Your task to perform on an android device: Open maps Image 0: 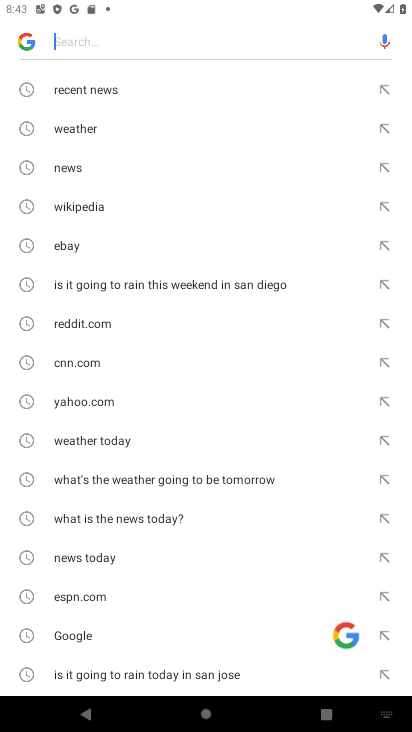
Step 0: press home button
Your task to perform on an android device: Open maps Image 1: 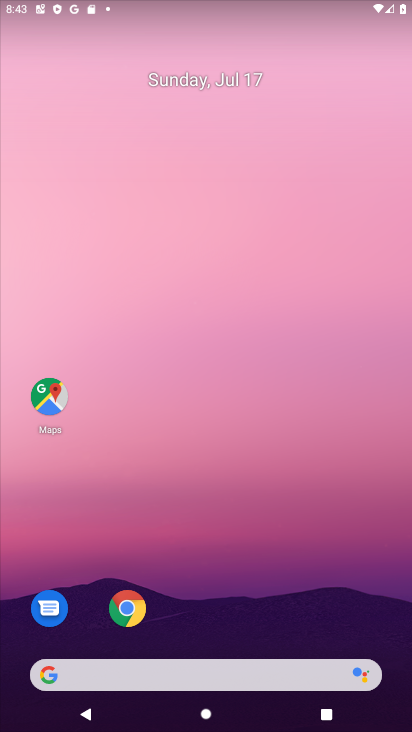
Step 1: click (41, 396)
Your task to perform on an android device: Open maps Image 2: 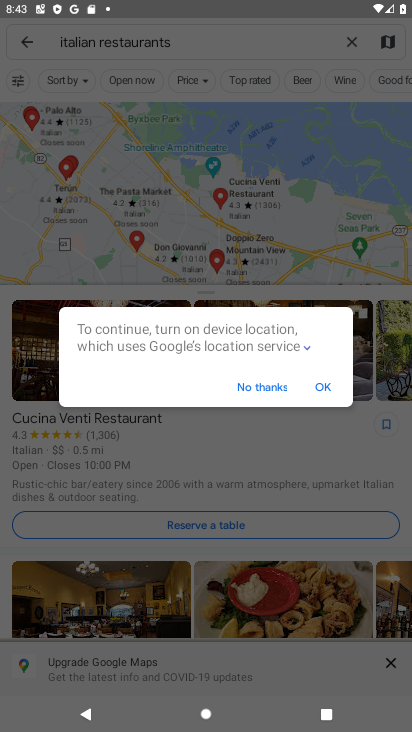
Step 2: click (317, 387)
Your task to perform on an android device: Open maps Image 3: 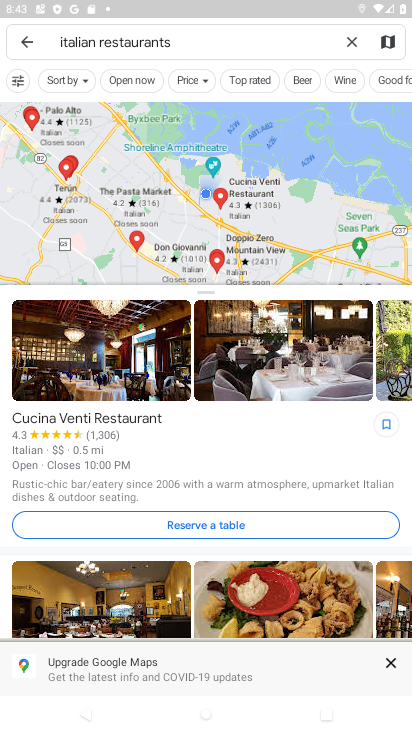
Step 3: click (30, 47)
Your task to perform on an android device: Open maps Image 4: 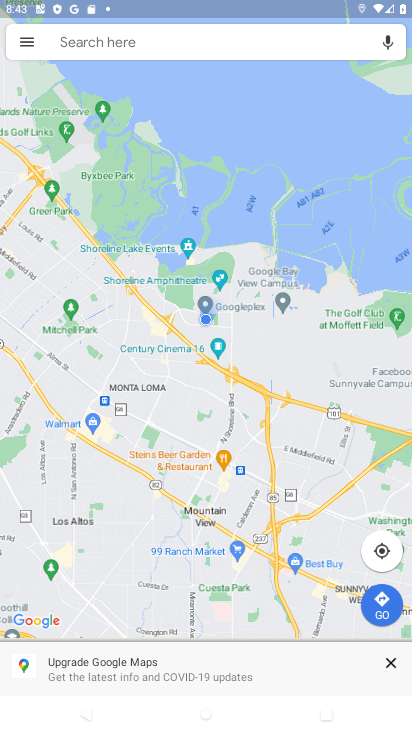
Step 4: task complete